Your task to perform on an android device: stop showing notifications on the lock screen Image 0: 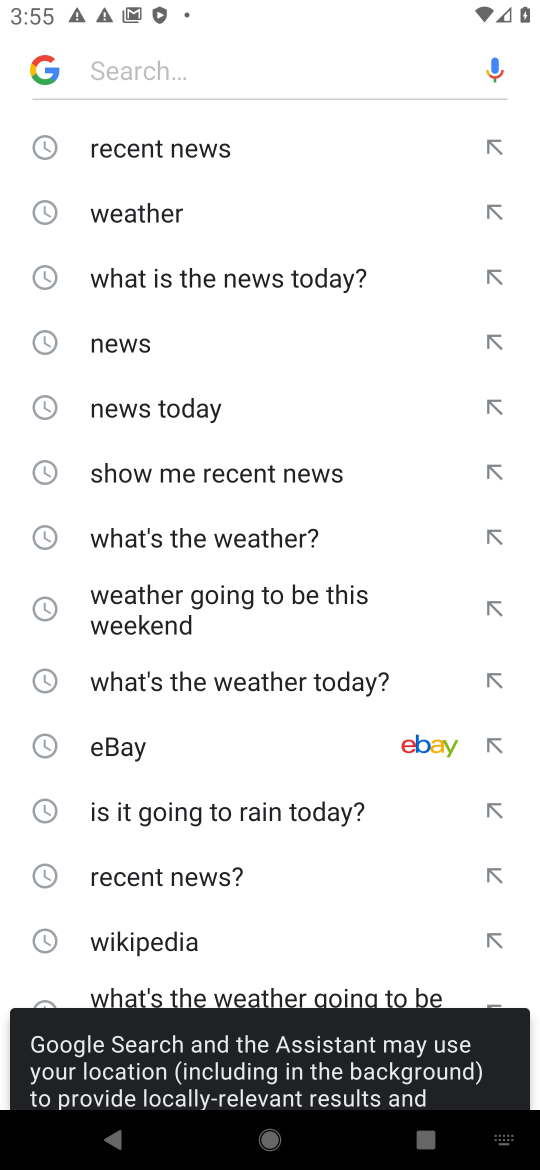
Step 0: press home button
Your task to perform on an android device: stop showing notifications on the lock screen Image 1: 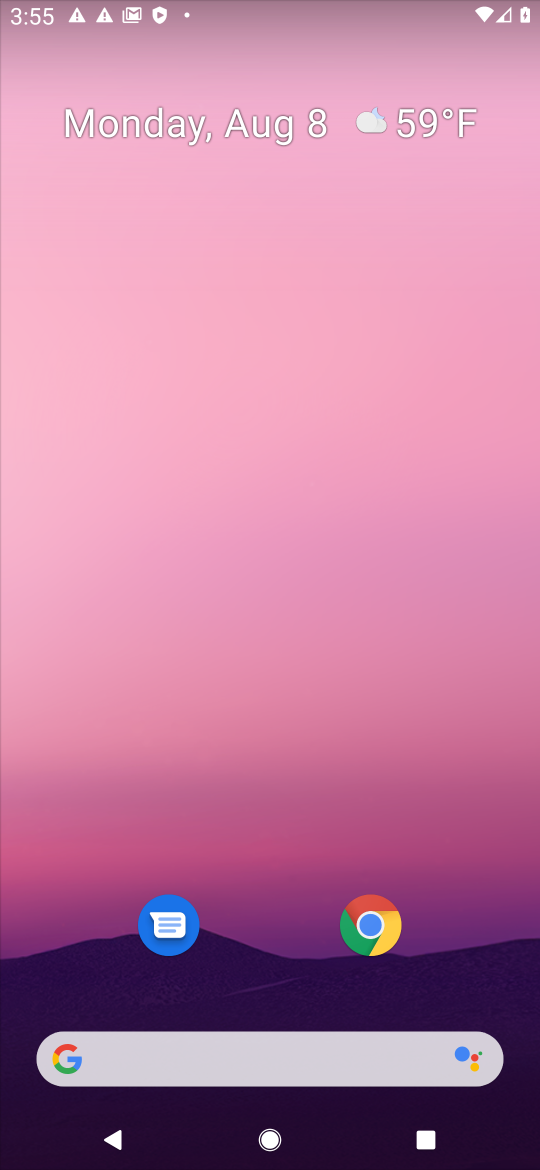
Step 1: drag from (266, 828) to (253, 222)
Your task to perform on an android device: stop showing notifications on the lock screen Image 2: 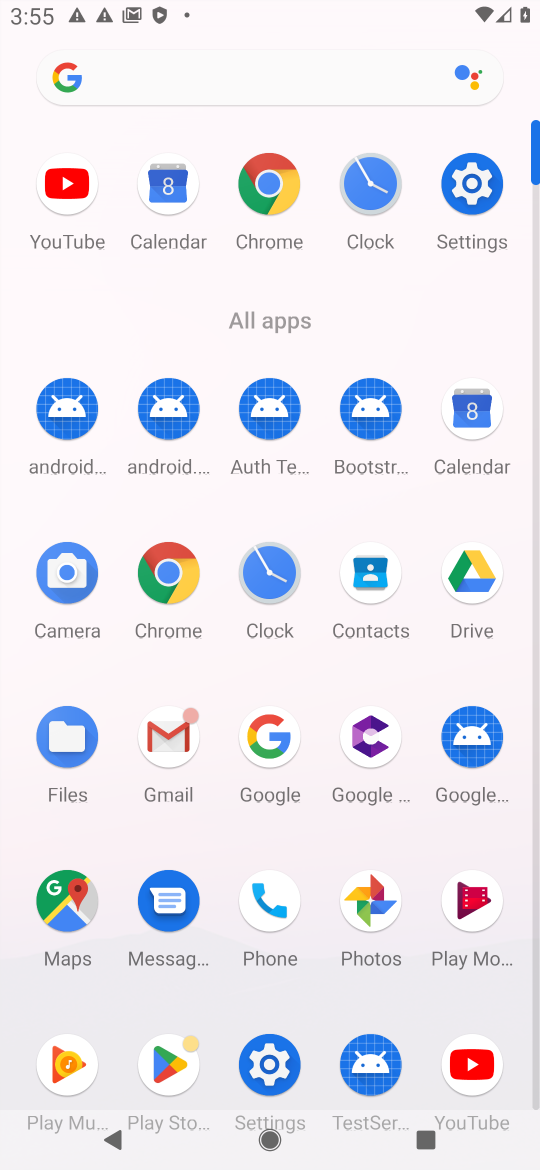
Step 2: click (464, 182)
Your task to perform on an android device: stop showing notifications on the lock screen Image 3: 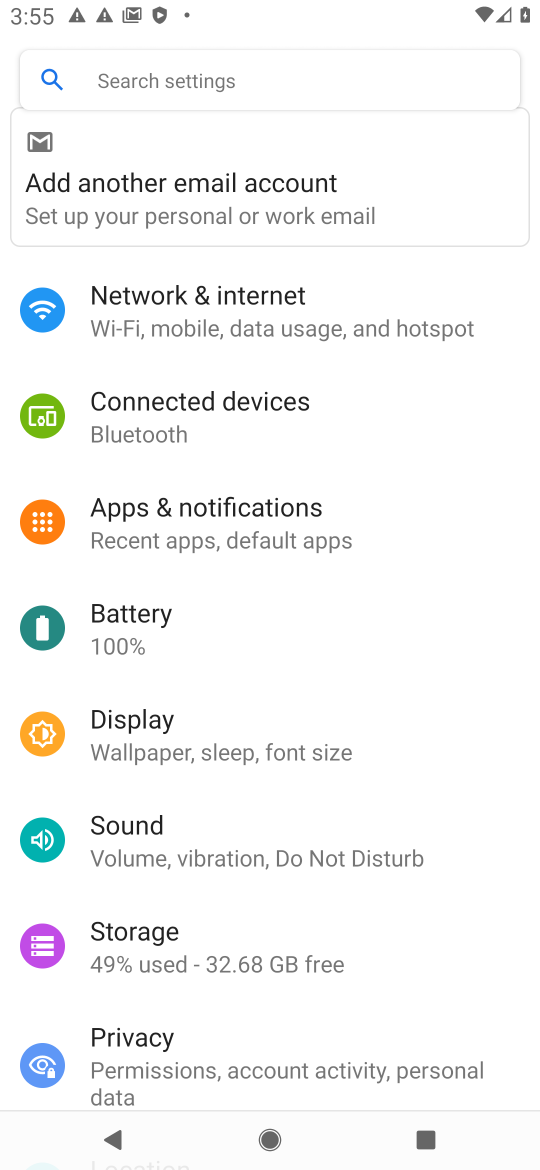
Step 3: click (160, 521)
Your task to perform on an android device: stop showing notifications on the lock screen Image 4: 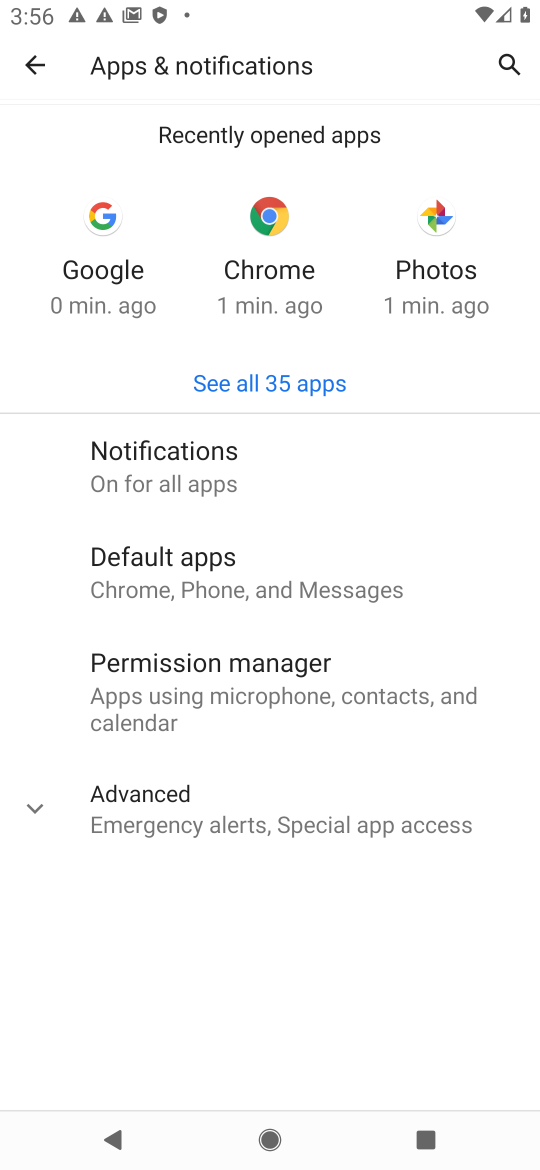
Step 4: click (150, 460)
Your task to perform on an android device: stop showing notifications on the lock screen Image 5: 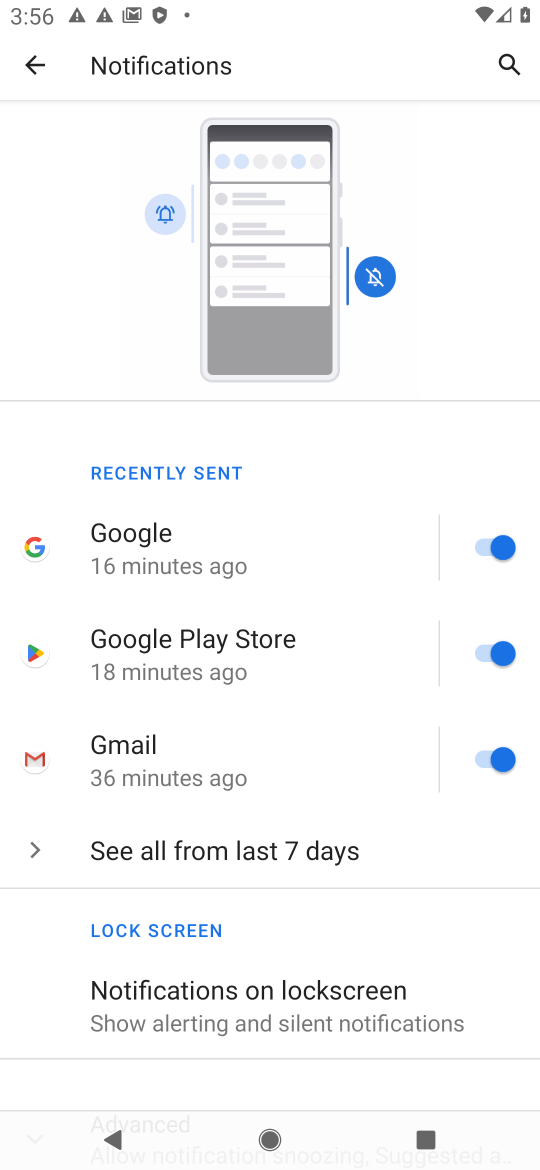
Step 5: click (193, 998)
Your task to perform on an android device: stop showing notifications on the lock screen Image 6: 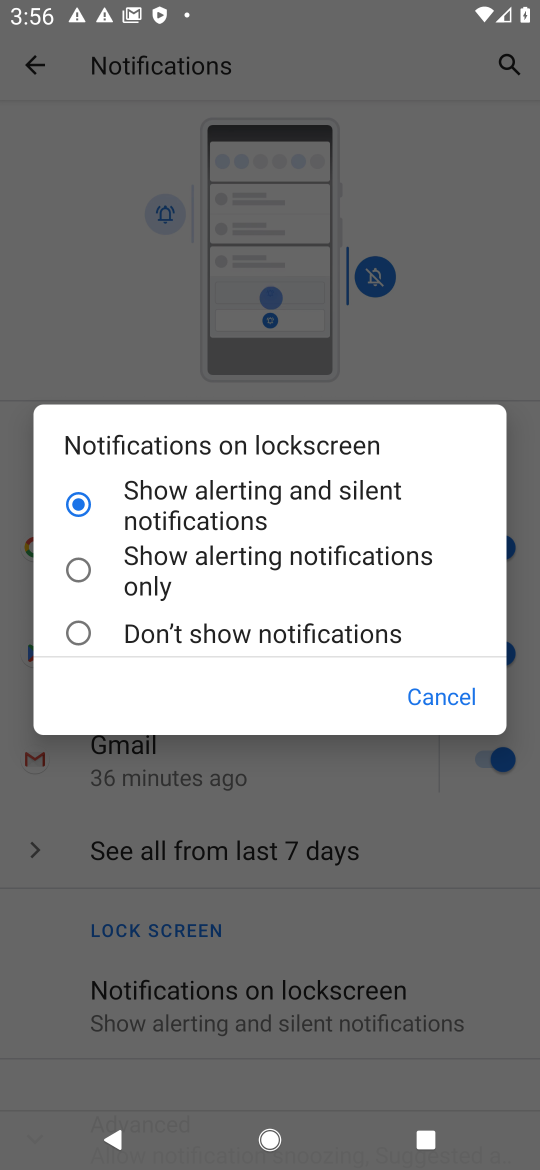
Step 6: click (77, 624)
Your task to perform on an android device: stop showing notifications on the lock screen Image 7: 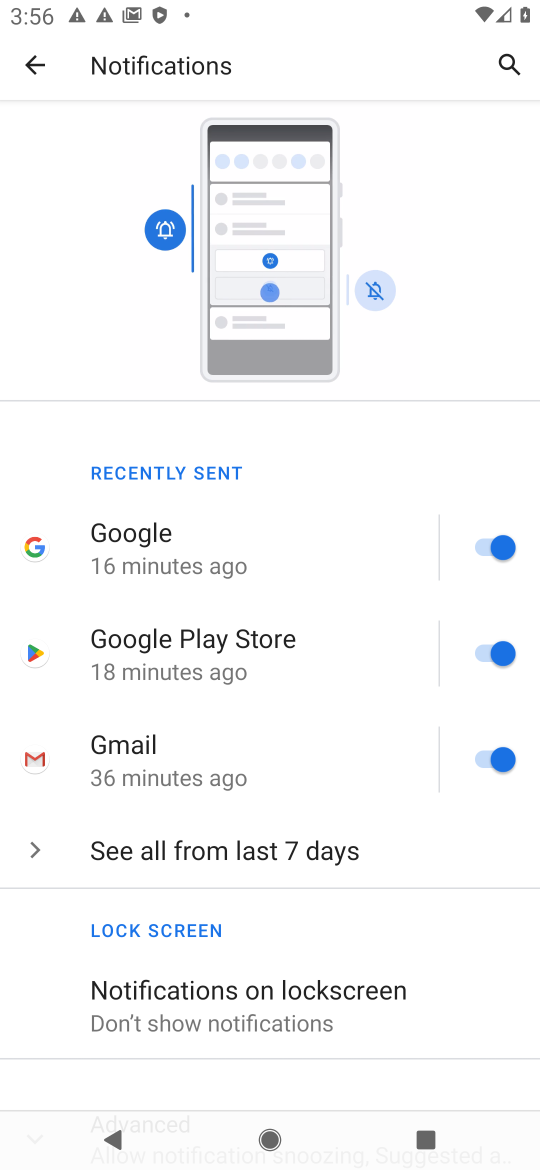
Step 7: task complete